Your task to perform on an android device: Add "apple airpods pro" to the cart on target Image 0: 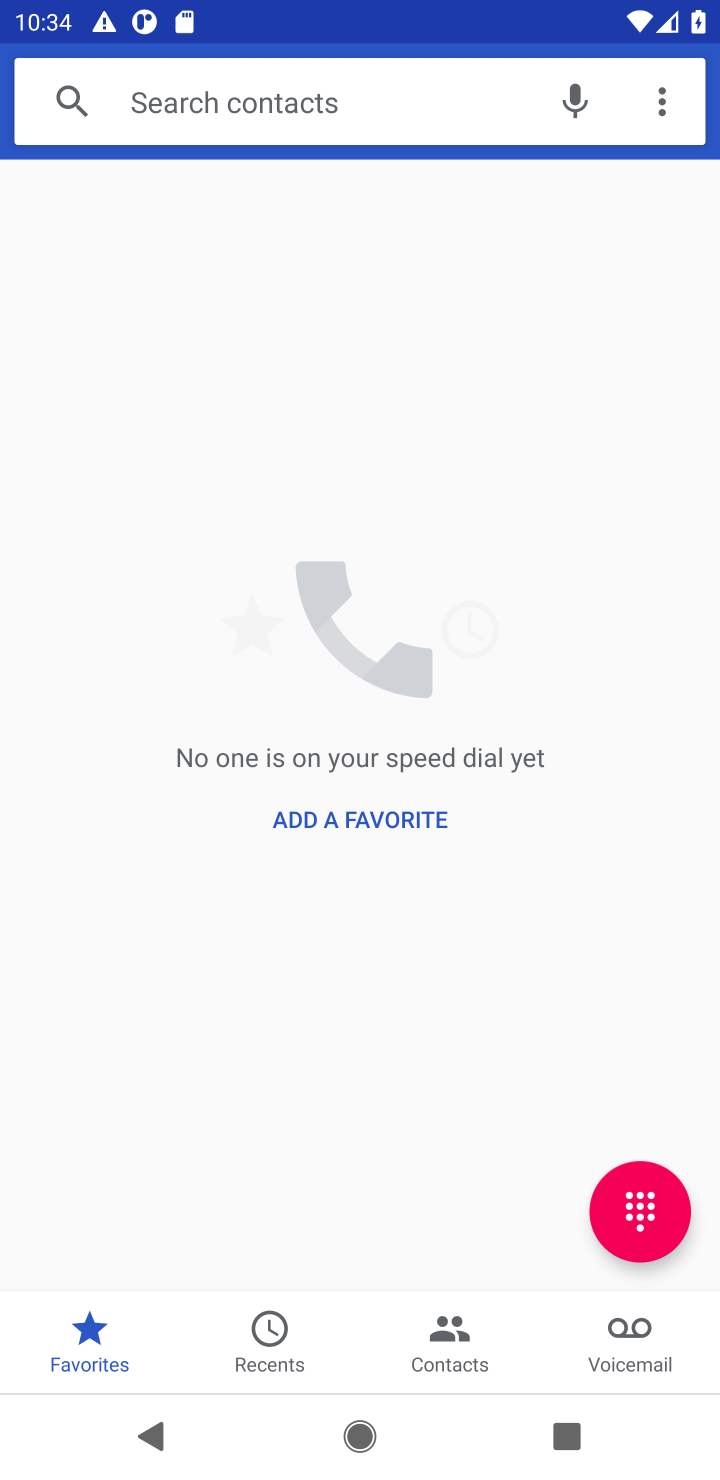
Step 0: press home button
Your task to perform on an android device: Add "apple airpods pro" to the cart on target Image 1: 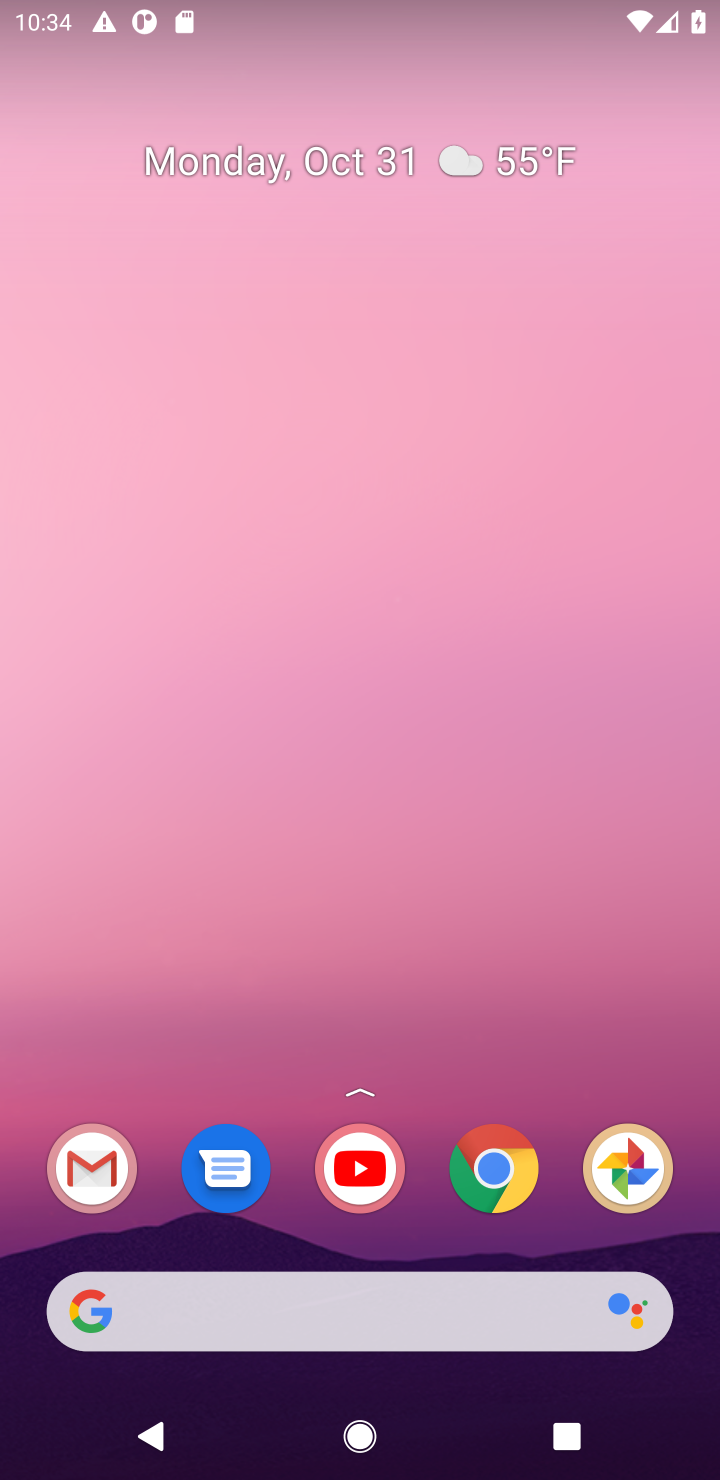
Step 1: click (506, 1167)
Your task to perform on an android device: Add "apple airpods pro" to the cart on target Image 2: 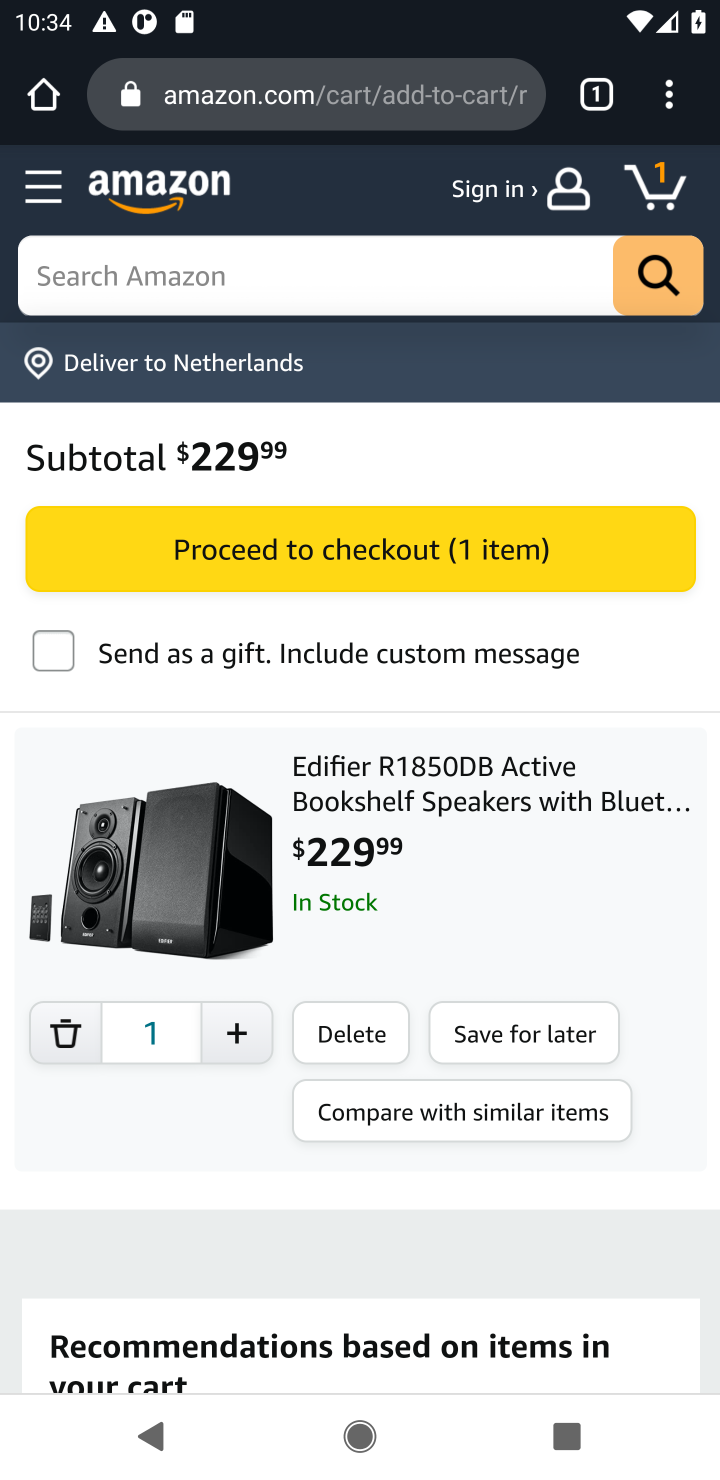
Step 2: click (219, 103)
Your task to perform on an android device: Add "apple airpods pro" to the cart on target Image 3: 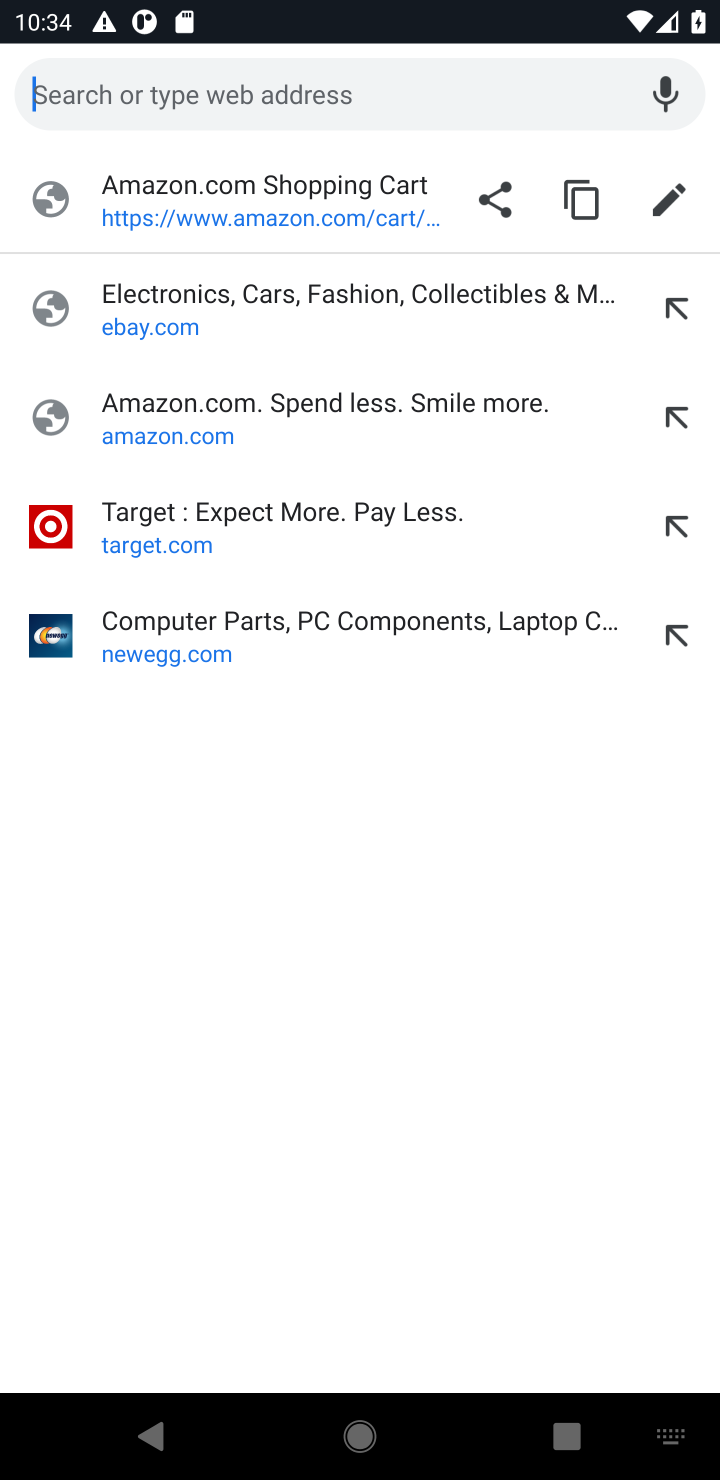
Step 3: click (241, 527)
Your task to perform on an android device: Add "apple airpods pro" to the cart on target Image 4: 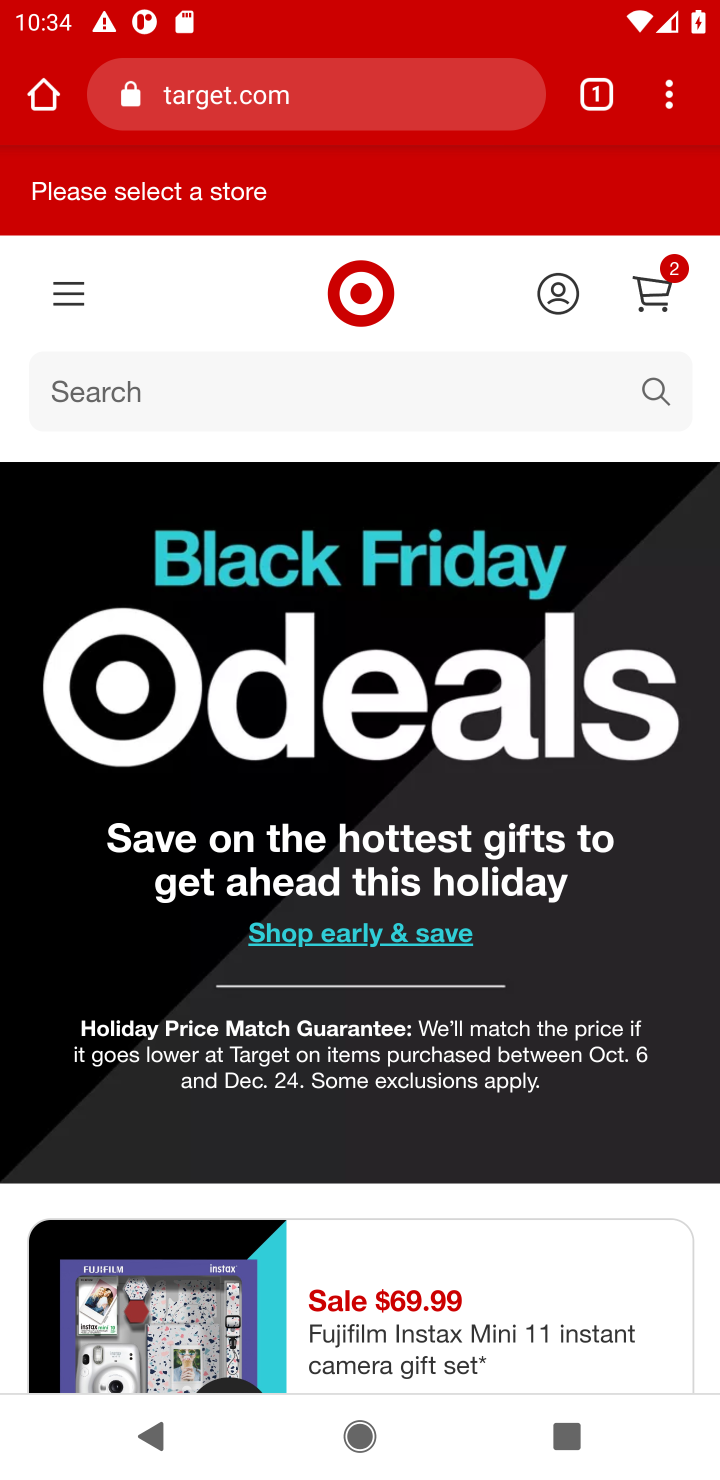
Step 4: click (326, 410)
Your task to perform on an android device: Add "apple airpods pro" to the cart on target Image 5: 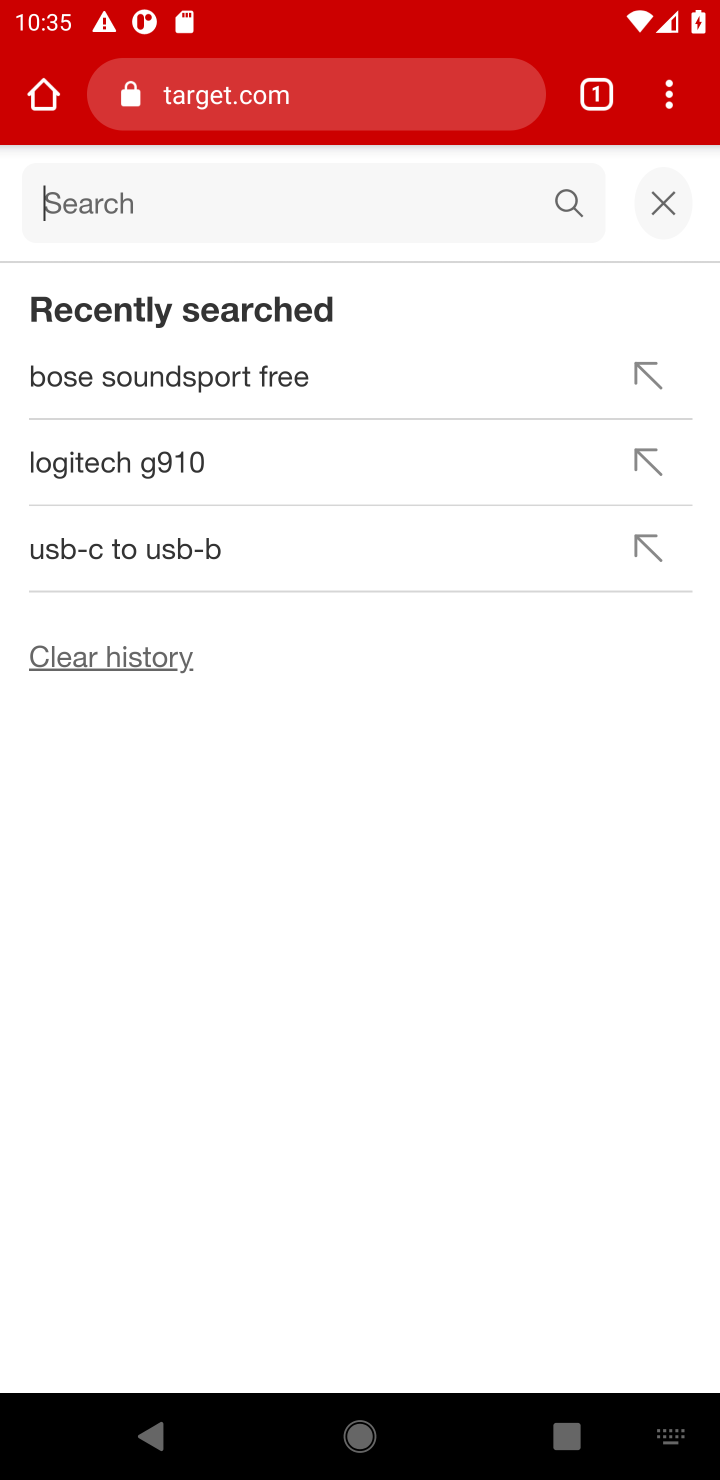
Step 5: type "apple airpods pro"
Your task to perform on an android device: Add "apple airpods pro" to the cart on target Image 6: 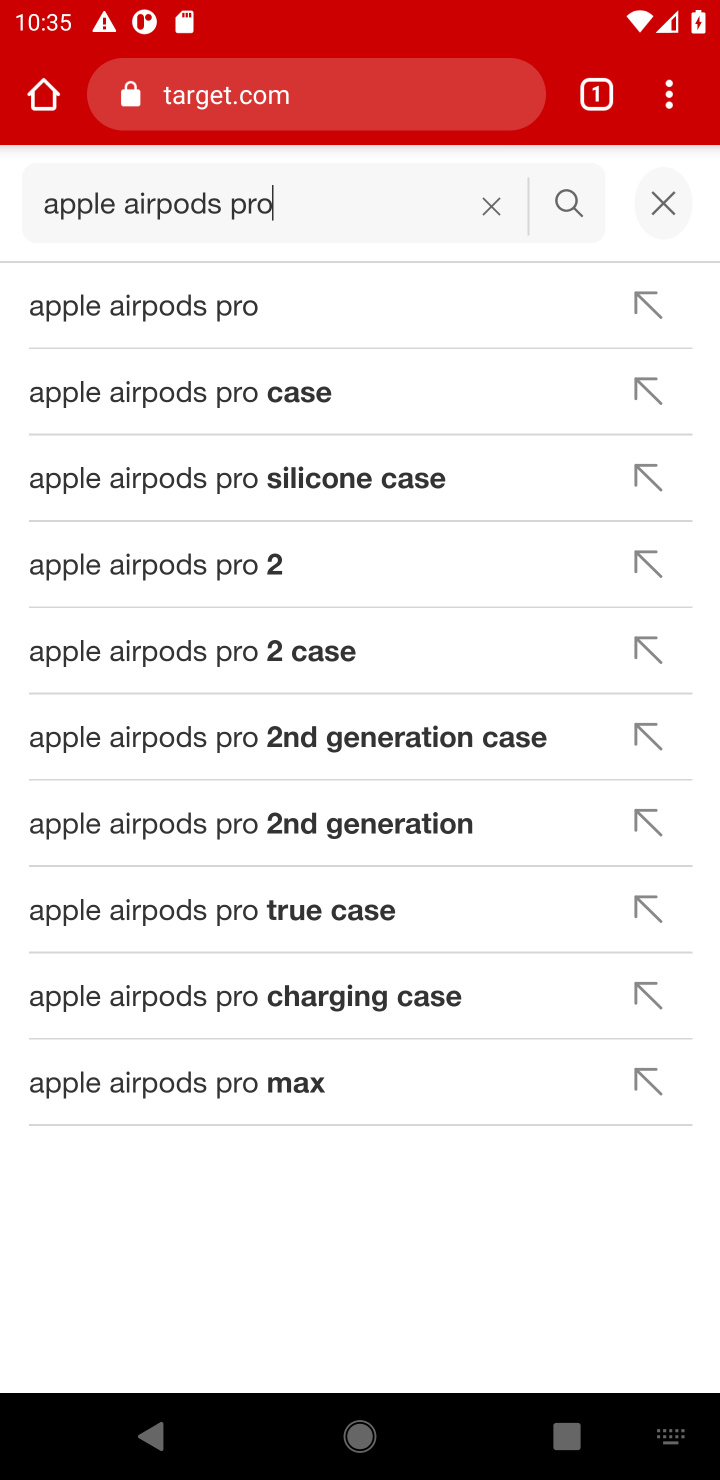
Step 6: click (352, 321)
Your task to perform on an android device: Add "apple airpods pro" to the cart on target Image 7: 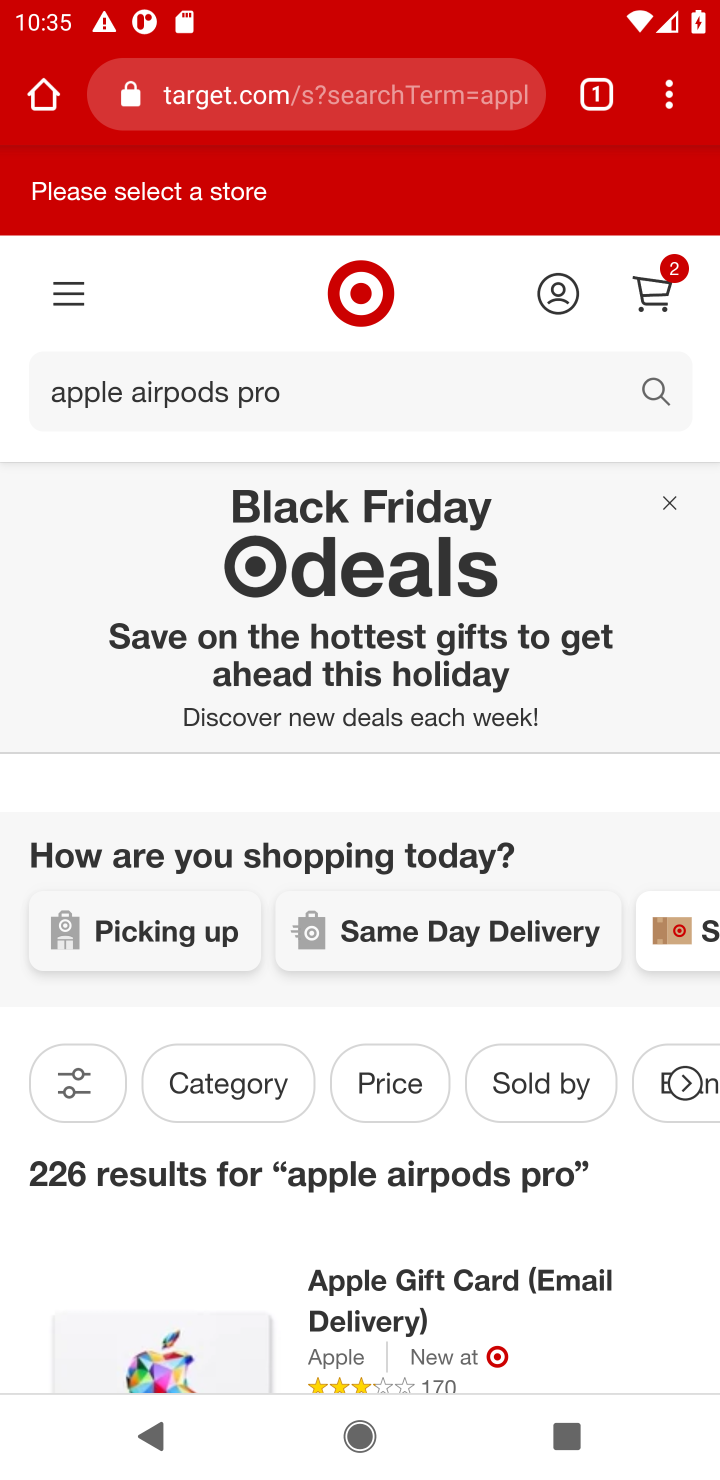
Step 7: drag from (672, 1241) to (530, 438)
Your task to perform on an android device: Add "apple airpods pro" to the cart on target Image 8: 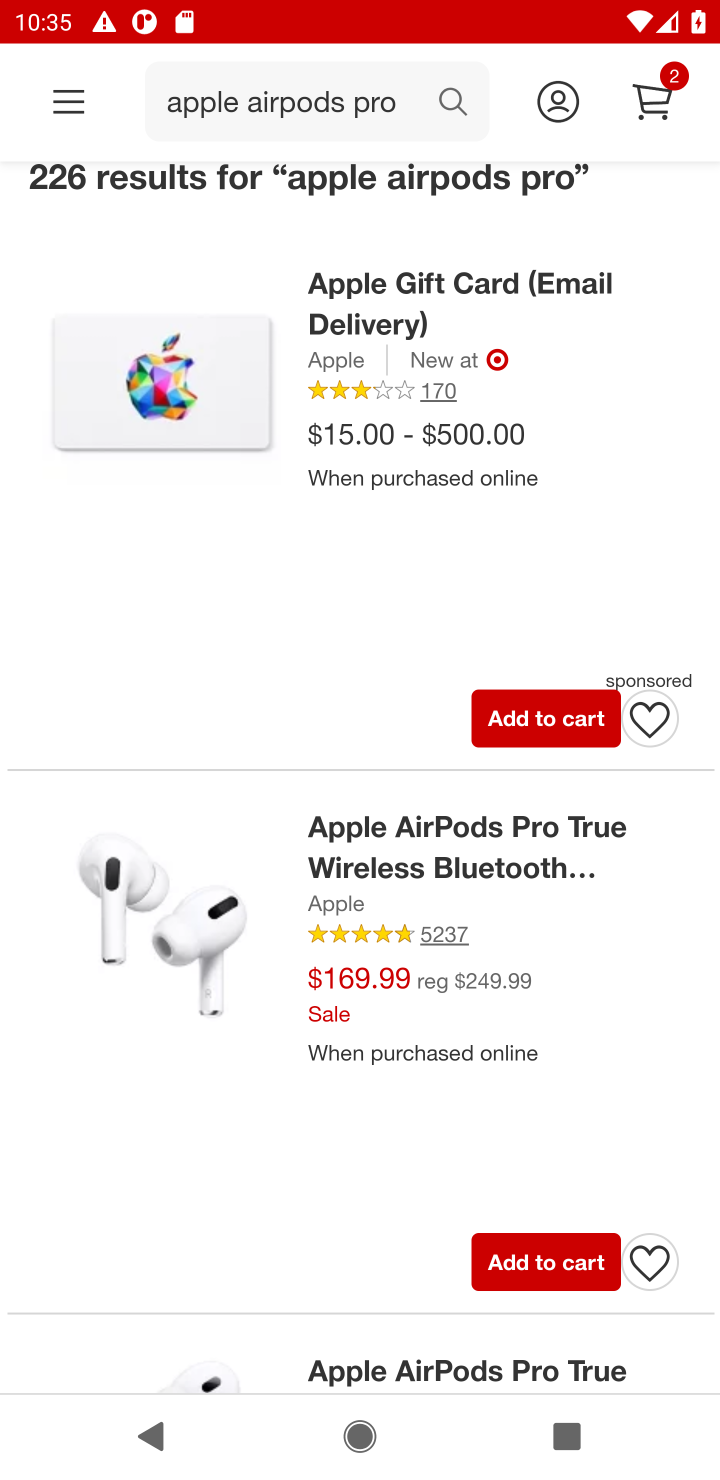
Step 8: click (345, 860)
Your task to perform on an android device: Add "apple airpods pro" to the cart on target Image 9: 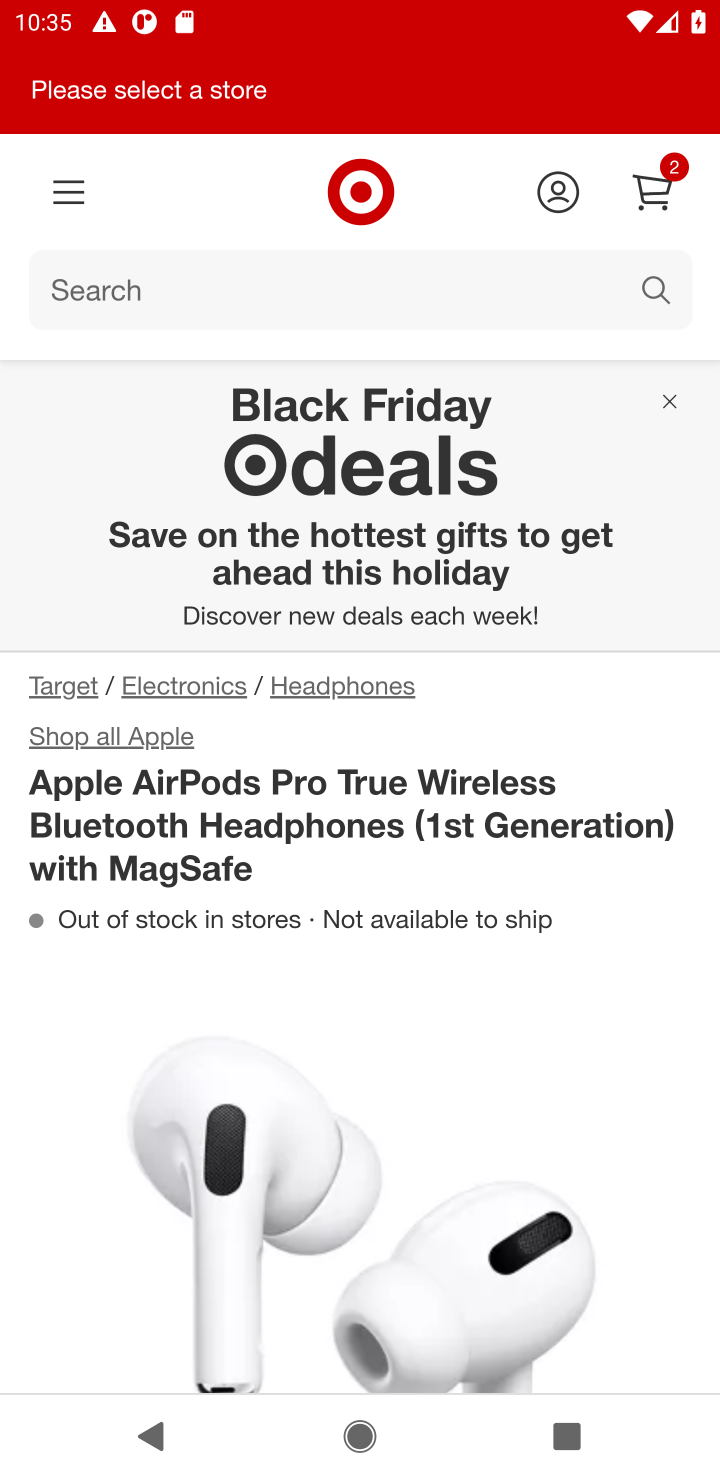
Step 9: drag from (541, 1114) to (523, 493)
Your task to perform on an android device: Add "apple airpods pro" to the cart on target Image 10: 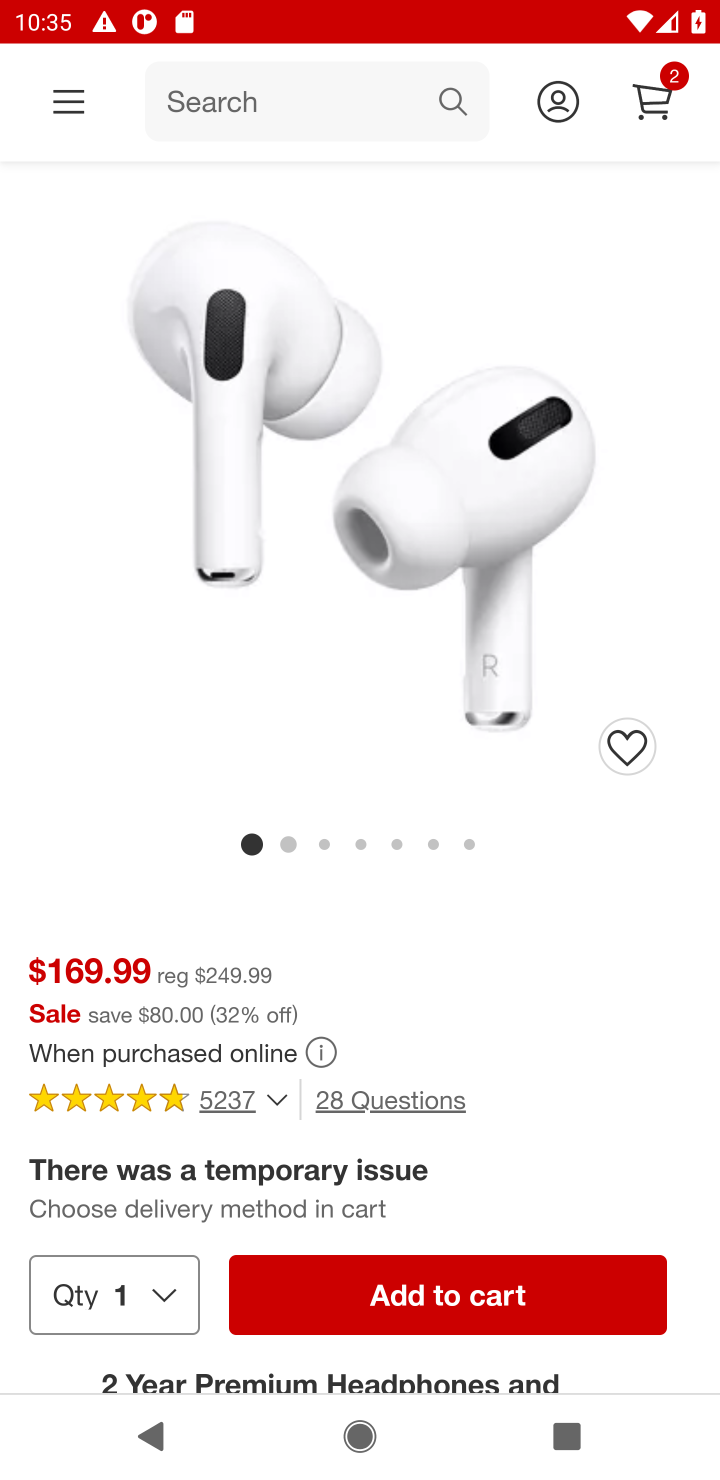
Step 10: click (432, 1304)
Your task to perform on an android device: Add "apple airpods pro" to the cart on target Image 11: 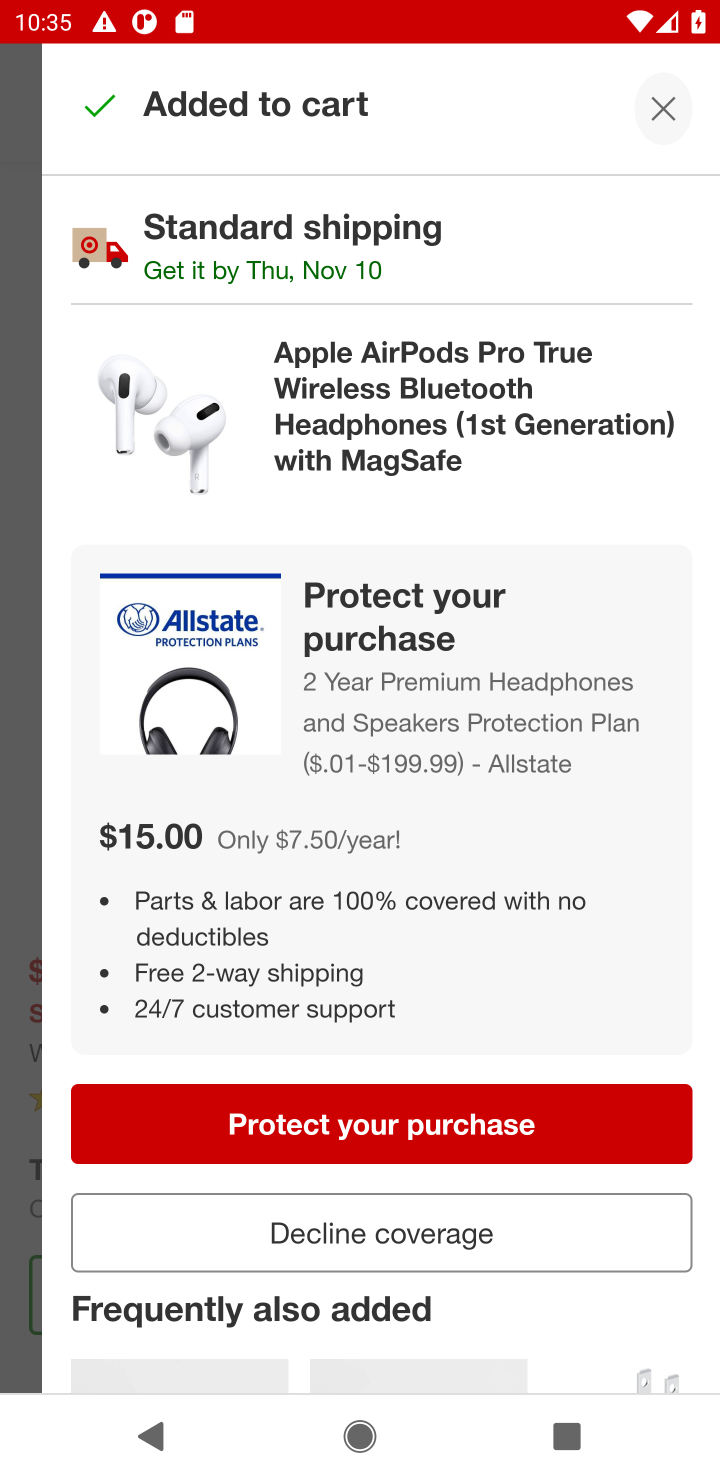
Step 11: click (401, 1237)
Your task to perform on an android device: Add "apple airpods pro" to the cart on target Image 12: 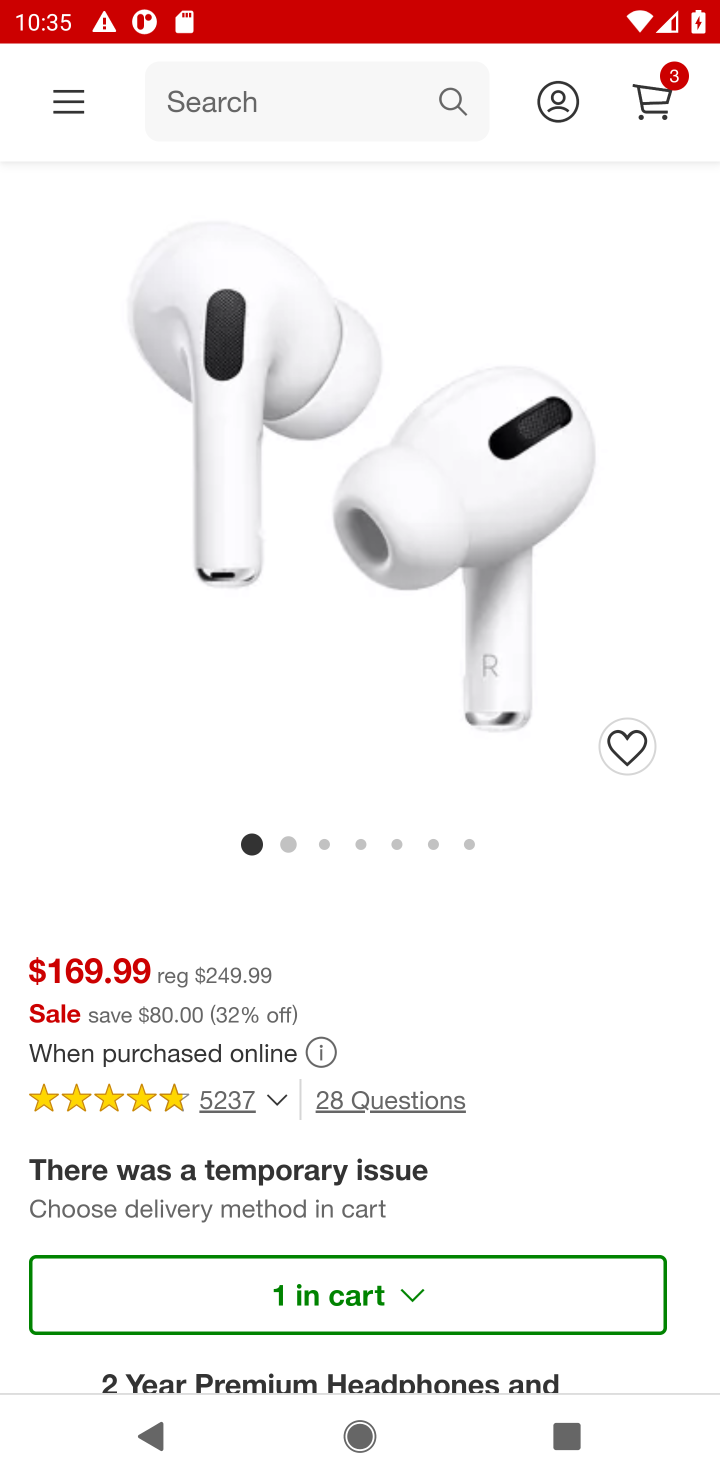
Step 12: task complete